Your task to perform on an android device: all mails in gmail Image 0: 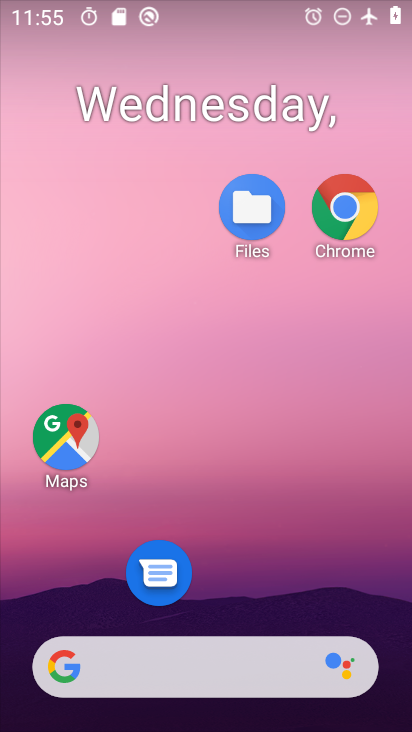
Step 0: drag from (291, 589) to (242, 350)
Your task to perform on an android device: all mails in gmail Image 1: 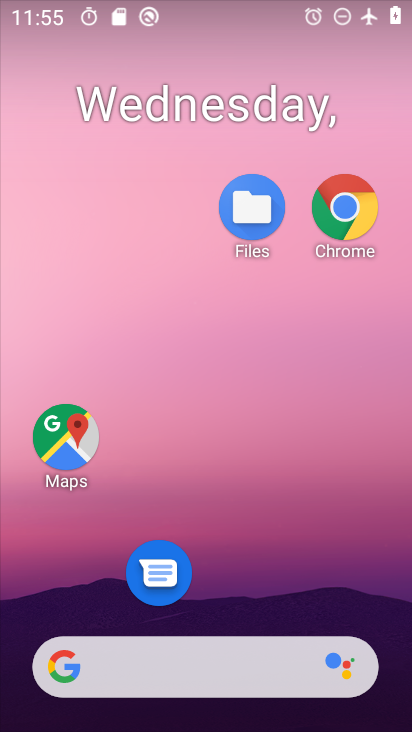
Step 1: drag from (169, 632) to (204, 275)
Your task to perform on an android device: all mails in gmail Image 2: 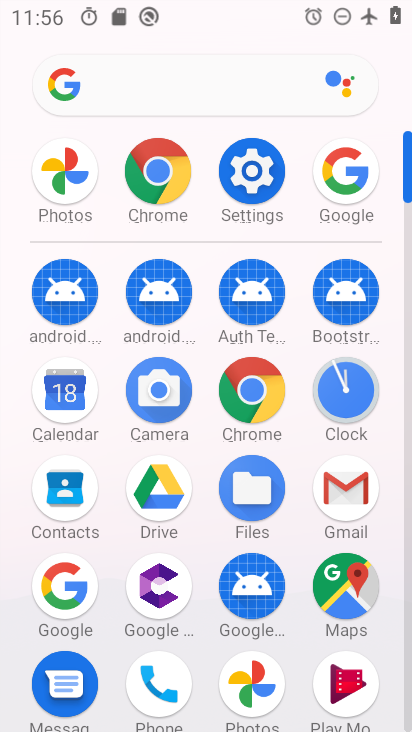
Step 2: click (328, 515)
Your task to perform on an android device: all mails in gmail Image 3: 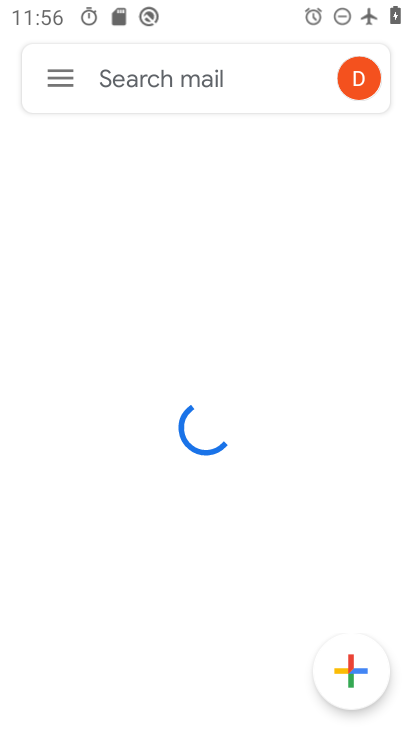
Step 3: click (155, 176)
Your task to perform on an android device: all mails in gmail Image 4: 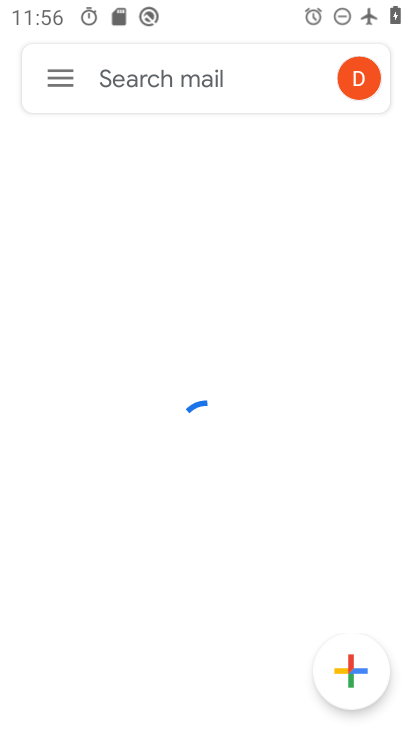
Step 4: click (47, 74)
Your task to perform on an android device: all mails in gmail Image 5: 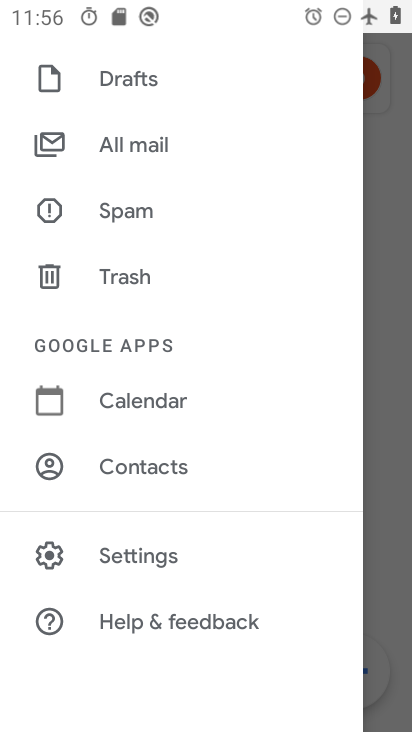
Step 5: click (180, 156)
Your task to perform on an android device: all mails in gmail Image 6: 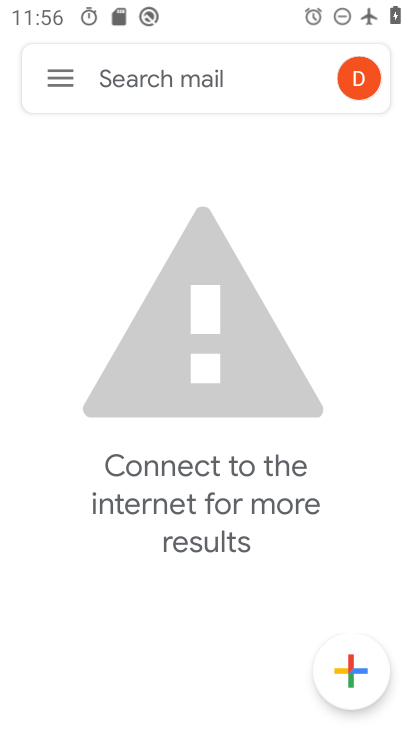
Step 6: task complete